Your task to perform on an android device: Search for seafood restaurants on Google Maps Image 0: 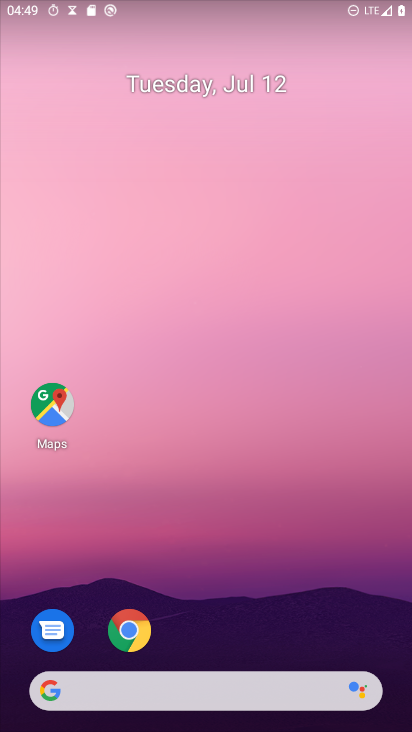
Step 0: drag from (284, 695) to (321, 86)
Your task to perform on an android device: Search for seafood restaurants on Google Maps Image 1: 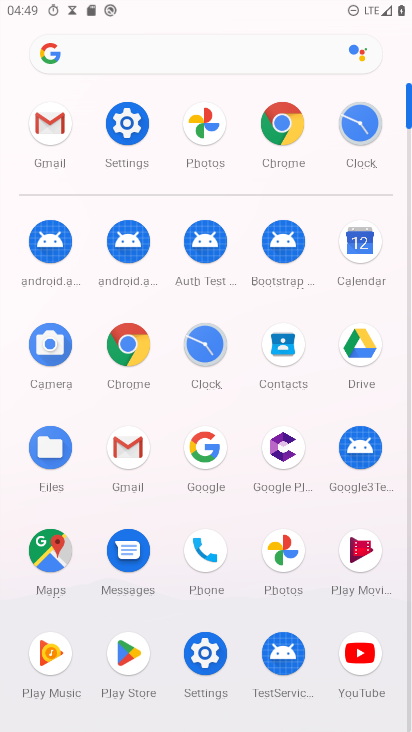
Step 1: click (55, 553)
Your task to perform on an android device: Search for seafood restaurants on Google Maps Image 2: 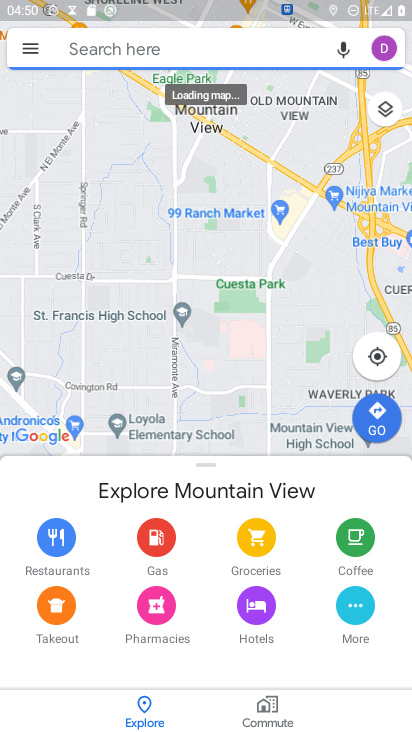
Step 2: click (263, 54)
Your task to perform on an android device: Search for seafood restaurants on Google Maps Image 3: 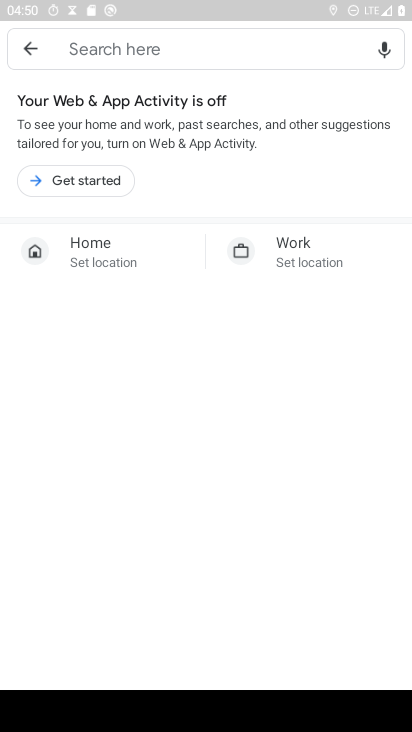
Step 3: type "seafood restaurant"
Your task to perform on an android device: Search for seafood restaurants on Google Maps Image 4: 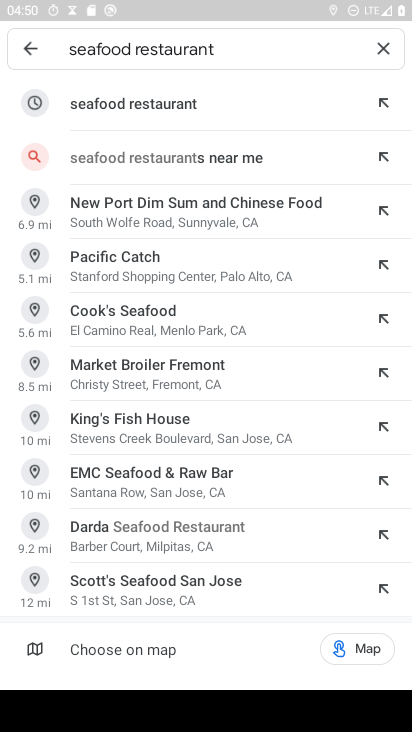
Step 4: click (180, 109)
Your task to perform on an android device: Search for seafood restaurants on Google Maps Image 5: 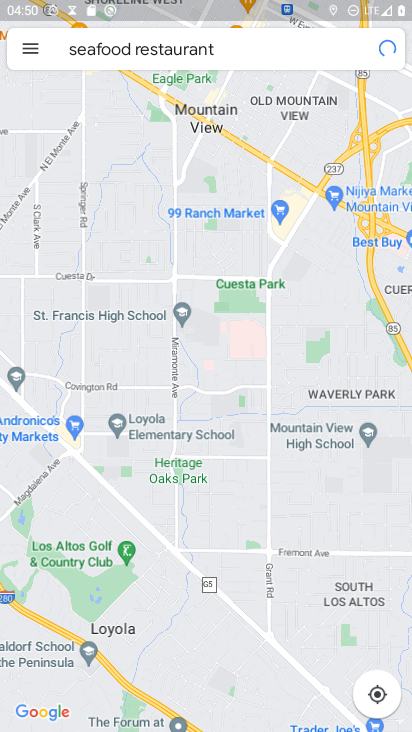
Step 5: task complete